Your task to perform on an android device: Go to Amazon Image 0: 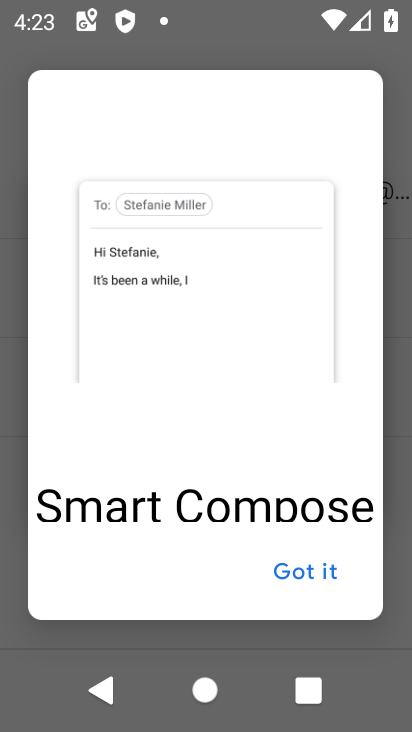
Step 0: task complete